Your task to perform on an android device: check data usage Image 0: 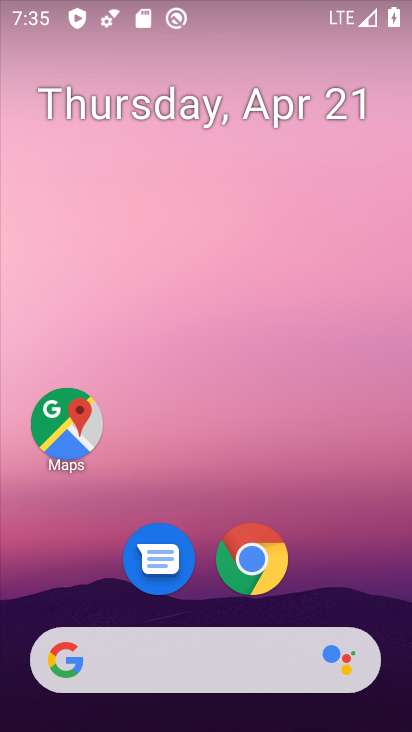
Step 0: drag from (366, 511) to (387, 87)
Your task to perform on an android device: check data usage Image 1: 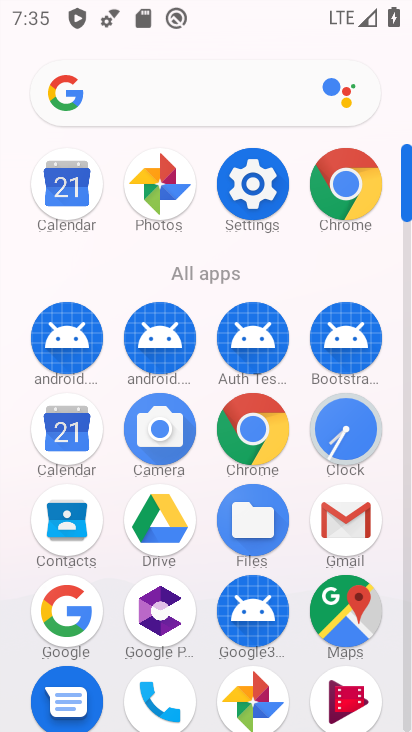
Step 1: click (259, 167)
Your task to perform on an android device: check data usage Image 2: 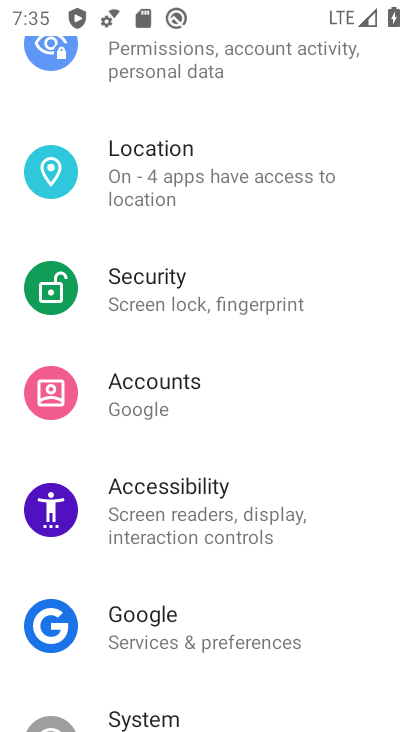
Step 2: drag from (273, 128) to (277, 663)
Your task to perform on an android device: check data usage Image 3: 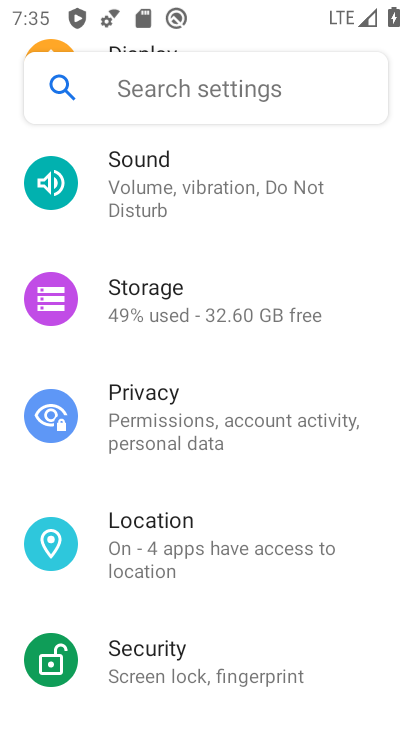
Step 3: drag from (301, 236) to (268, 600)
Your task to perform on an android device: check data usage Image 4: 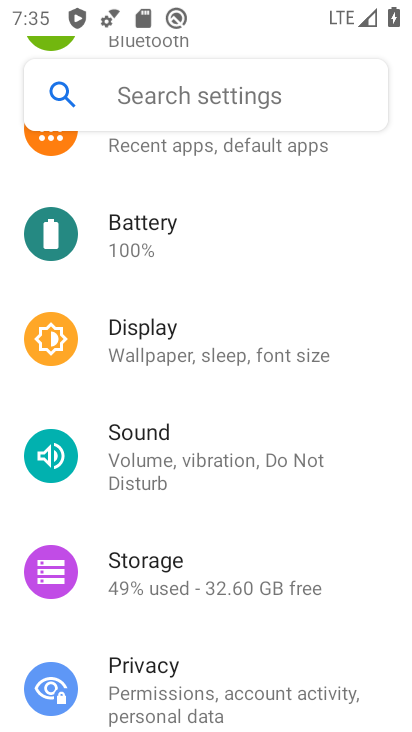
Step 4: drag from (320, 206) to (255, 641)
Your task to perform on an android device: check data usage Image 5: 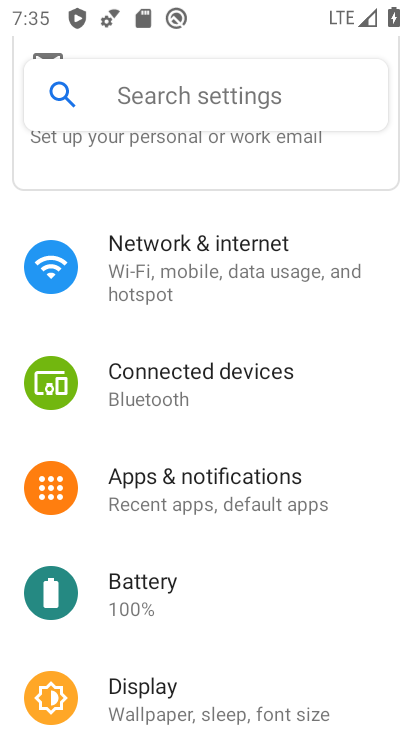
Step 5: click (274, 246)
Your task to perform on an android device: check data usage Image 6: 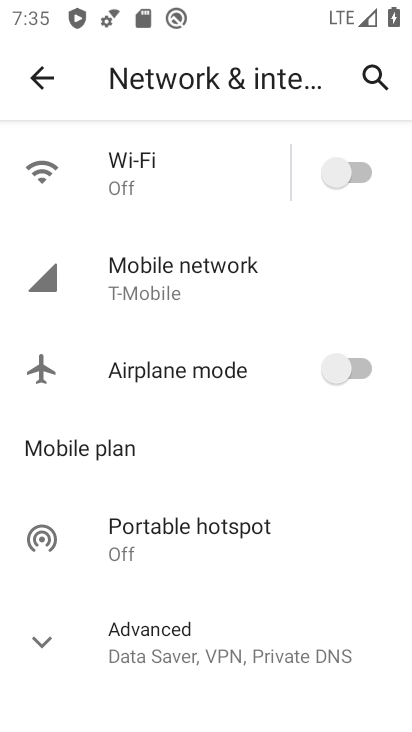
Step 6: click (256, 265)
Your task to perform on an android device: check data usage Image 7: 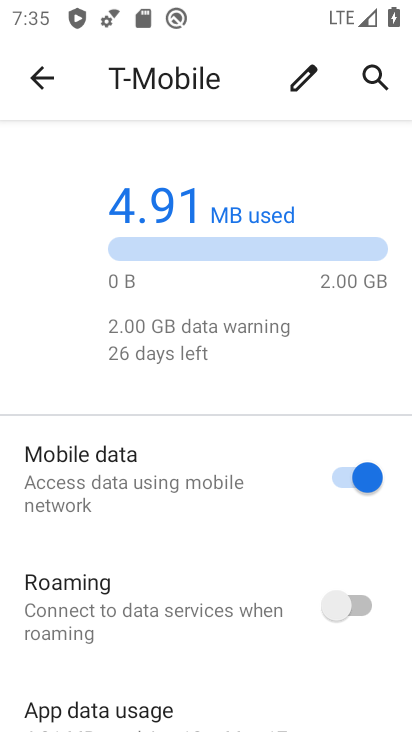
Step 7: drag from (135, 659) to (182, 372)
Your task to perform on an android device: check data usage Image 8: 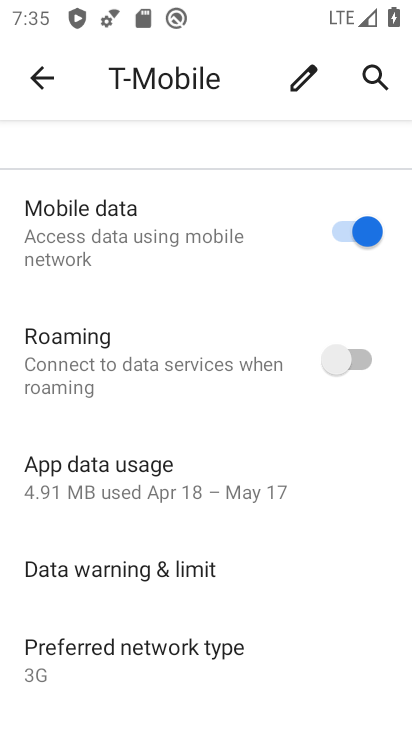
Step 8: click (136, 484)
Your task to perform on an android device: check data usage Image 9: 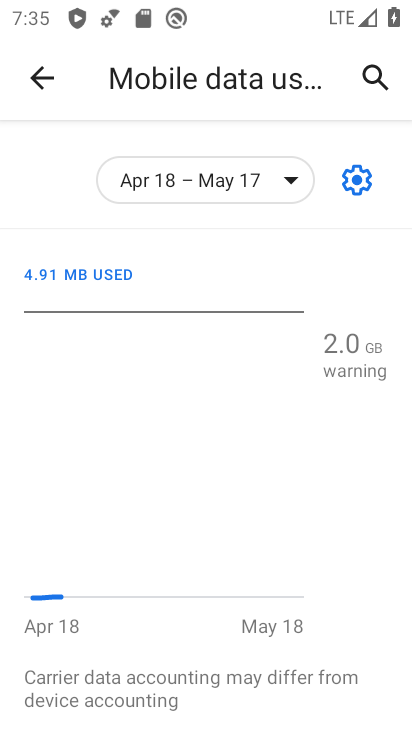
Step 9: task complete